Your task to perform on an android device: What's the weather going to be this weekend? Image 0: 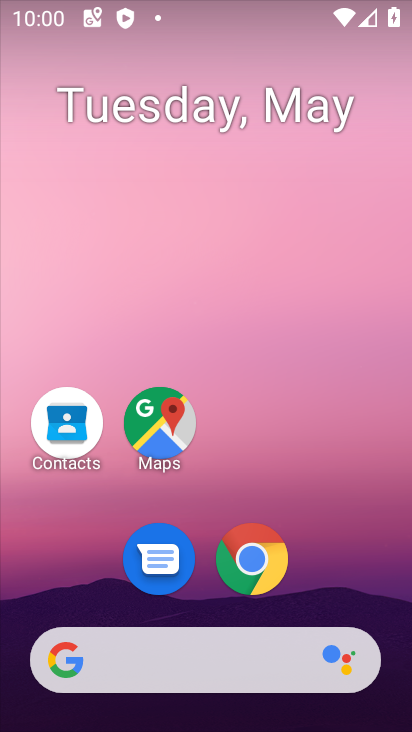
Step 0: drag from (347, 619) to (328, 264)
Your task to perform on an android device: What's the weather going to be this weekend? Image 1: 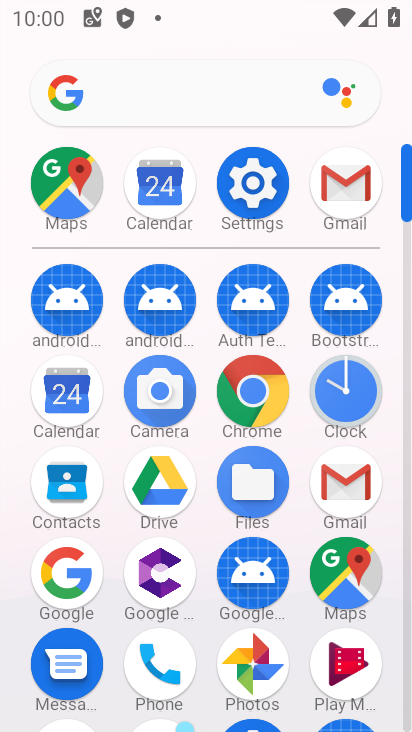
Step 1: click (77, 465)
Your task to perform on an android device: What's the weather going to be this weekend? Image 2: 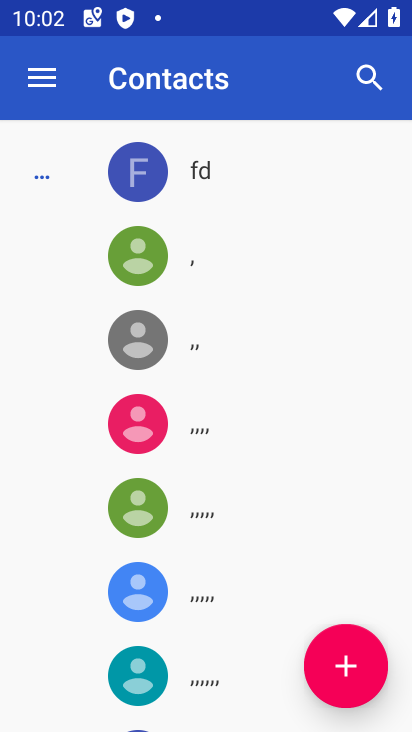
Step 2: press home button
Your task to perform on an android device: What's the weather going to be this weekend? Image 3: 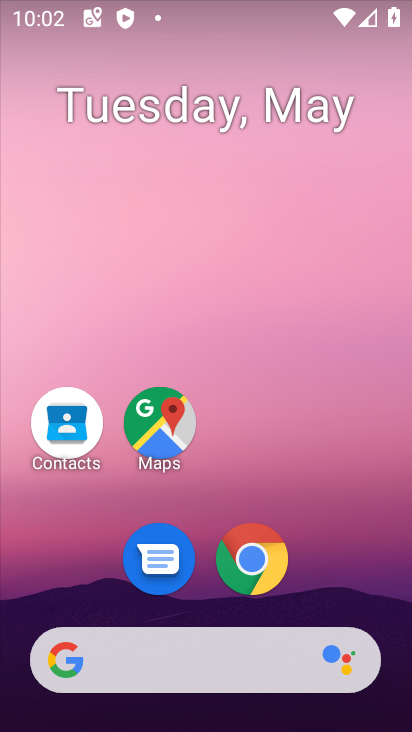
Step 3: drag from (335, 516) to (309, 5)
Your task to perform on an android device: What's the weather going to be this weekend? Image 4: 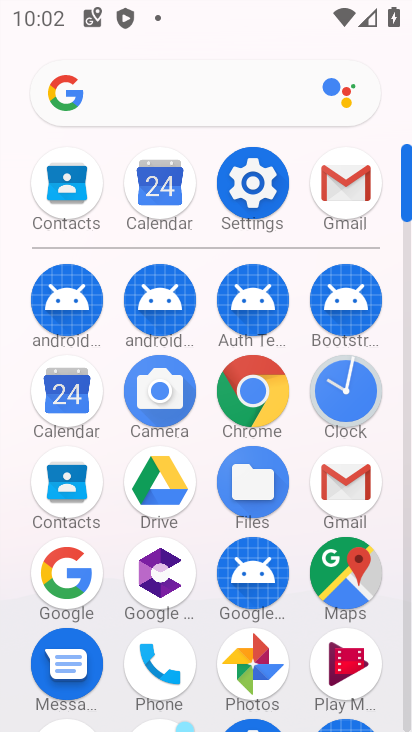
Step 4: click (262, 188)
Your task to perform on an android device: What's the weather going to be this weekend? Image 5: 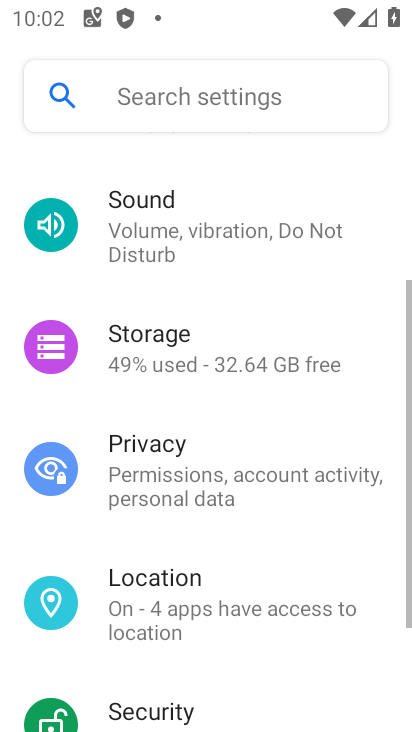
Step 5: task complete